Your task to perform on an android device: see tabs open on other devices in the chrome app Image 0: 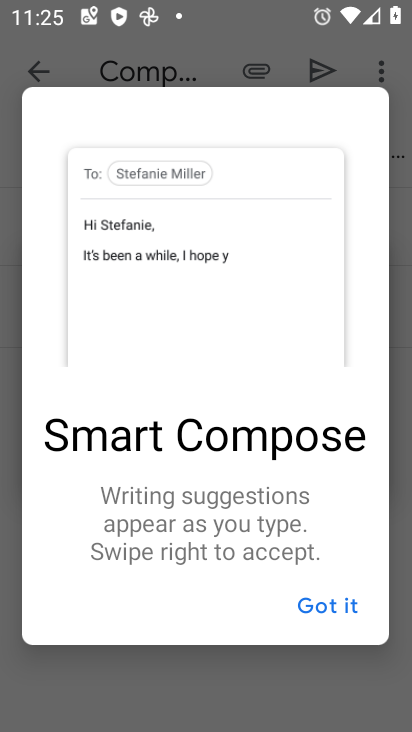
Step 0: click (346, 600)
Your task to perform on an android device: see tabs open on other devices in the chrome app Image 1: 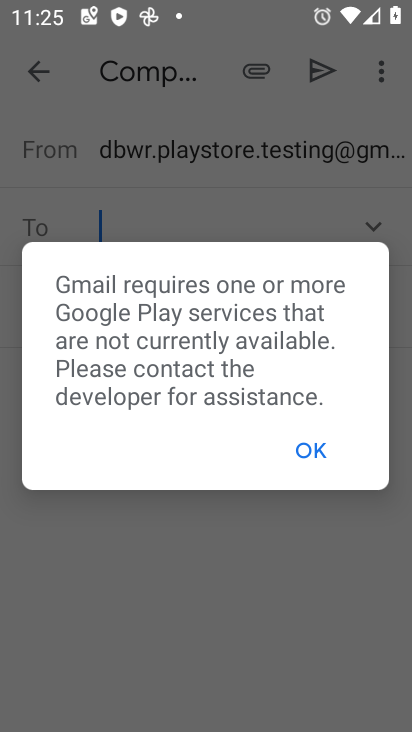
Step 1: press home button
Your task to perform on an android device: see tabs open on other devices in the chrome app Image 2: 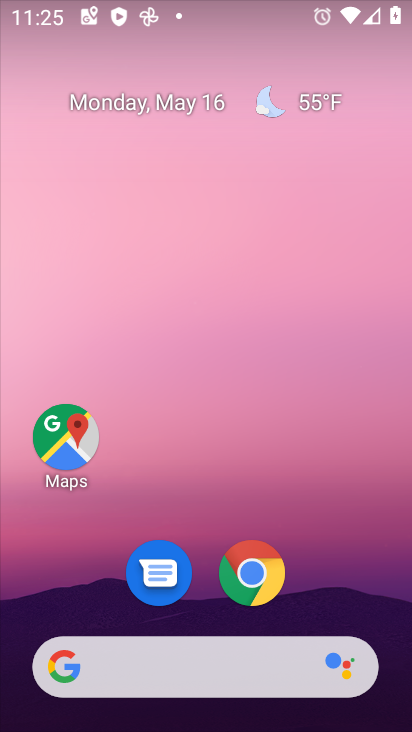
Step 2: click (302, 516)
Your task to perform on an android device: see tabs open on other devices in the chrome app Image 3: 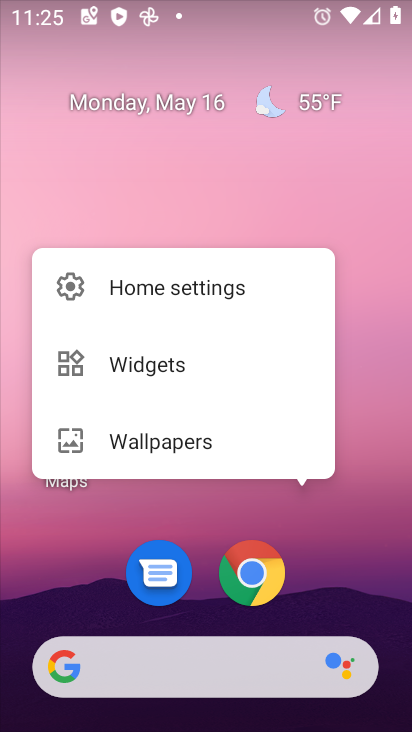
Step 3: click (273, 576)
Your task to perform on an android device: see tabs open on other devices in the chrome app Image 4: 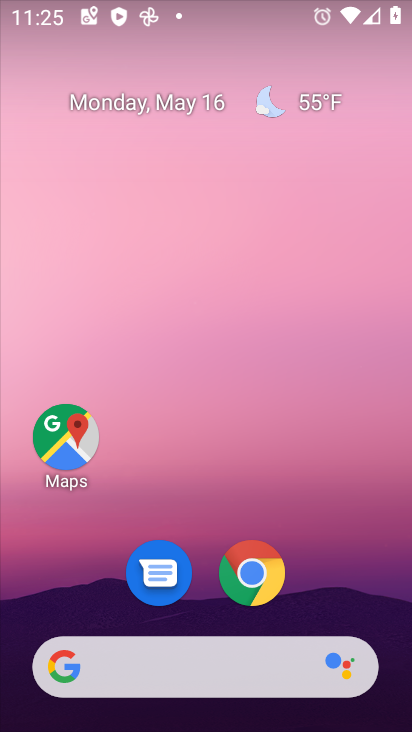
Step 4: click (250, 561)
Your task to perform on an android device: see tabs open on other devices in the chrome app Image 5: 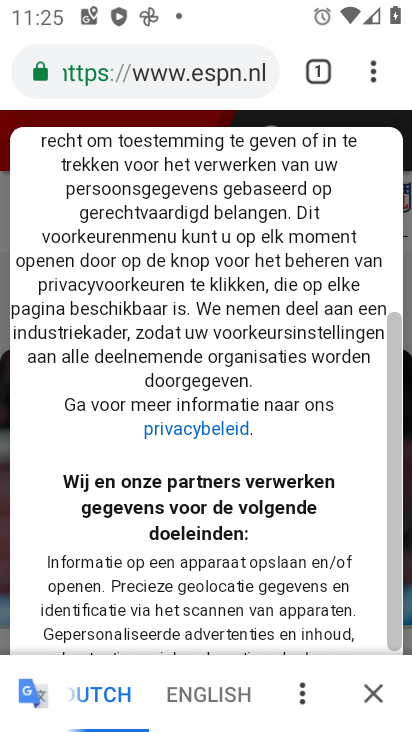
Step 5: click (362, 72)
Your task to perform on an android device: see tabs open on other devices in the chrome app Image 6: 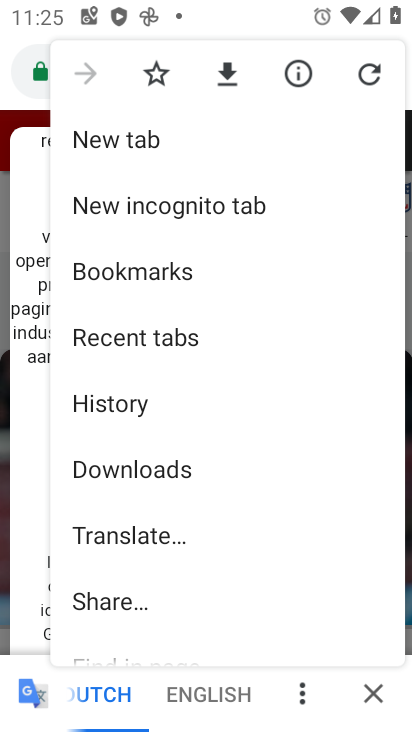
Step 6: click (188, 331)
Your task to perform on an android device: see tabs open on other devices in the chrome app Image 7: 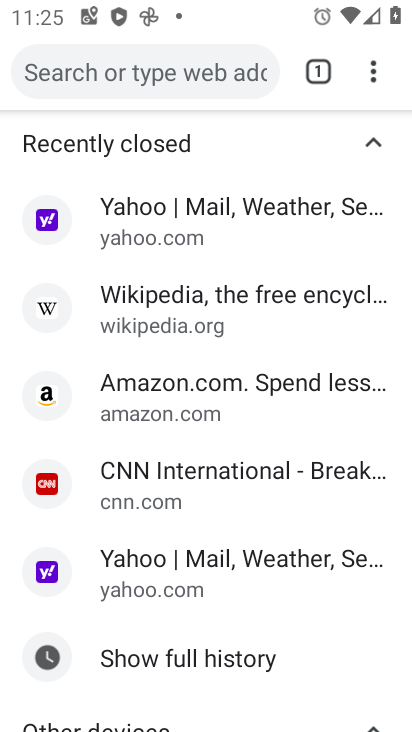
Step 7: task complete